Your task to perform on an android device: allow cookies in the chrome app Image 0: 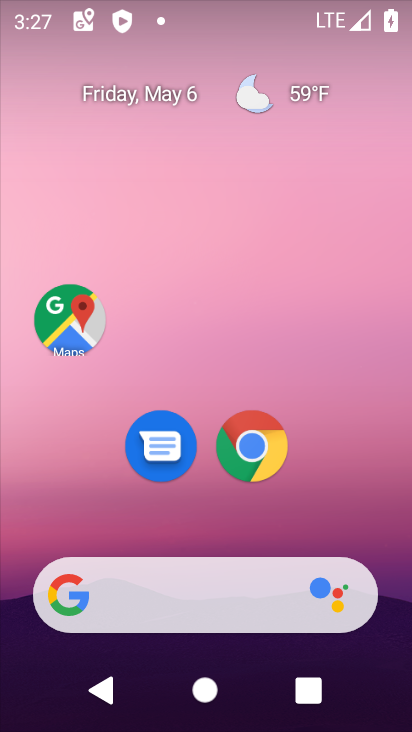
Step 0: click (255, 461)
Your task to perform on an android device: allow cookies in the chrome app Image 1: 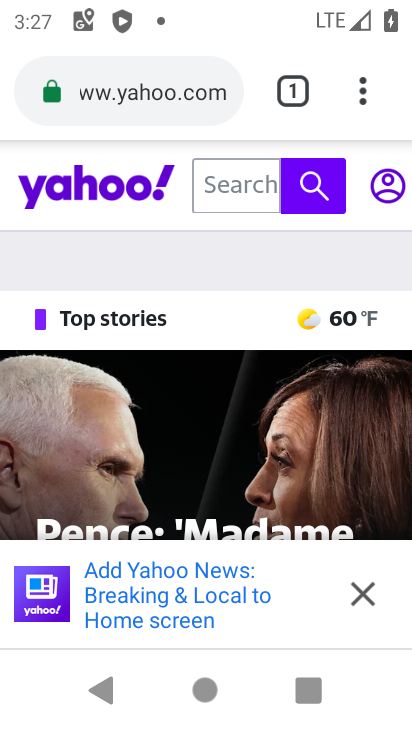
Step 1: drag from (361, 99) to (155, 491)
Your task to perform on an android device: allow cookies in the chrome app Image 2: 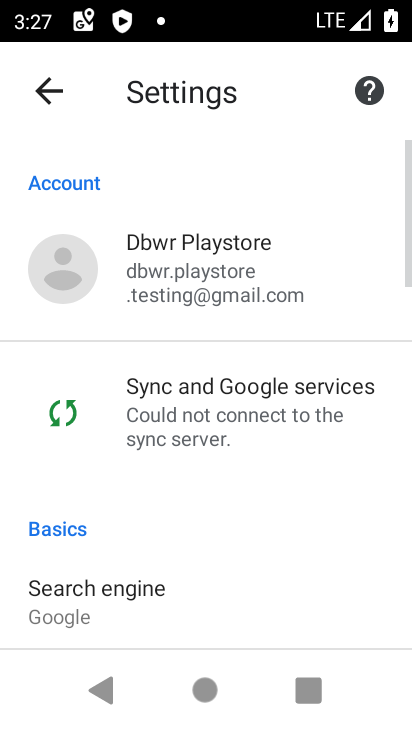
Step 2: drag from (202, 600) to (195, 253)
Your task to perform on an android device: allow cookies in the chrome app Image 3: 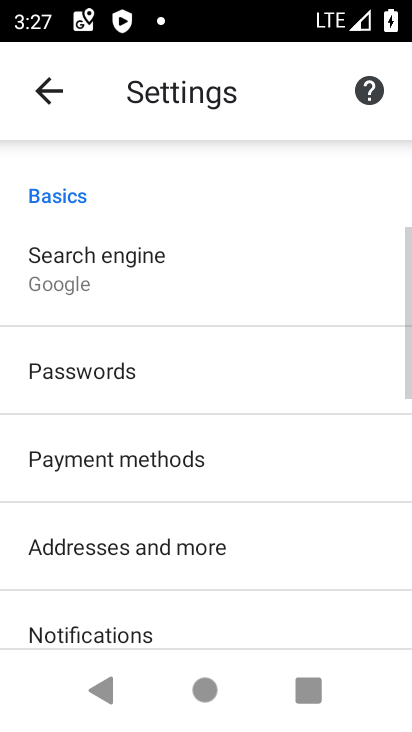
Step 3: drag from (189, 613) to (189, 276)
Your task to perform on an android device: allow cookies in the chrome app Image 4: 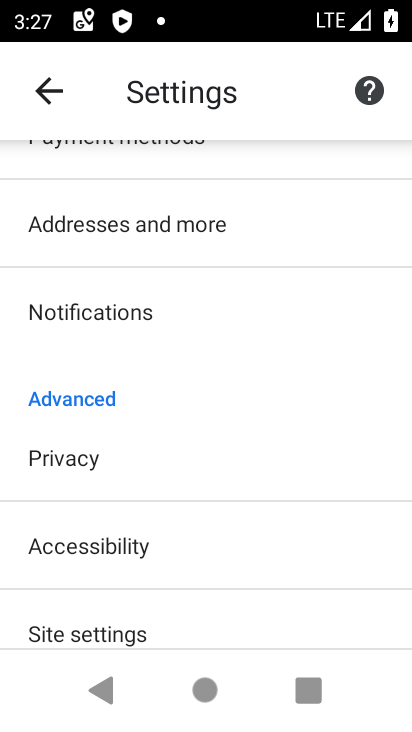
Step 4: click (169, 633)
Your task to perform on an android device: allow cookies in the chrome app Image 5: 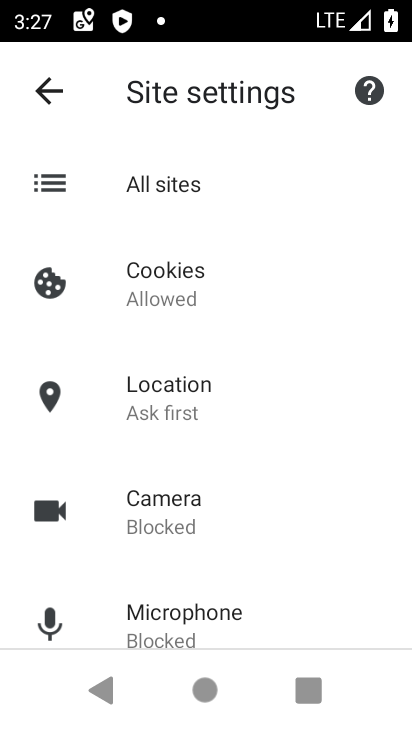
Step 5: click (226, 277)
Your task to perform on an android device: allow cookies in the chrome app Image 6: 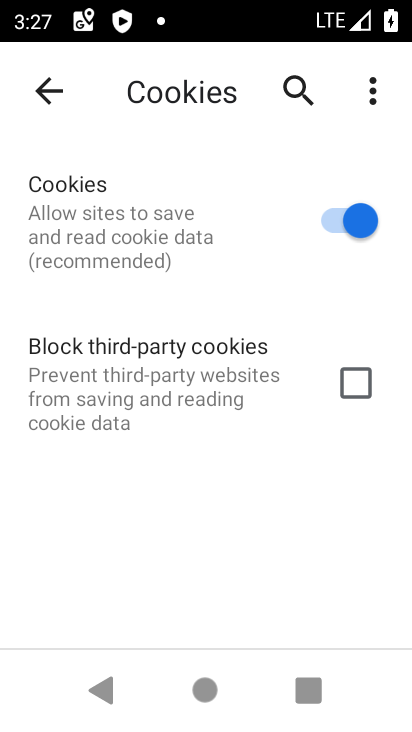
Step 6: task complete